Your task to perform on an android device: Go to settings Image 0: 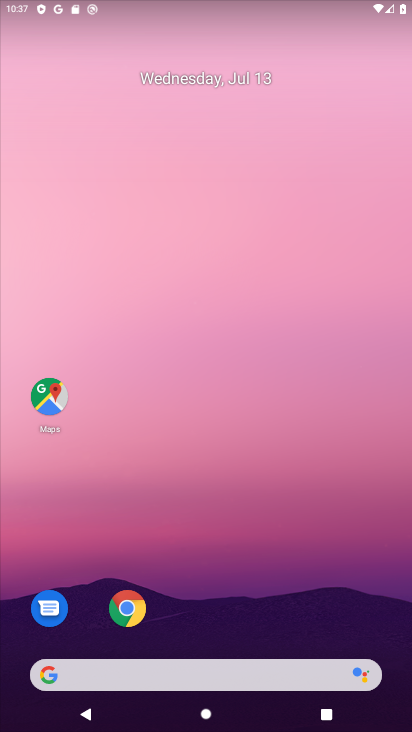
Step 0: drag from (268, 596) to (304, 158)
Your task to perform on an android device: Go to settings Image 1: 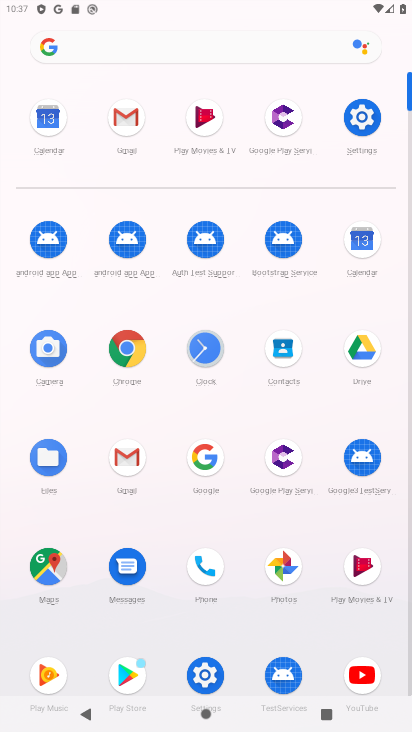
Step 1: click (368, 122)
Your task to perform on an android device: Go to settings Image 2: 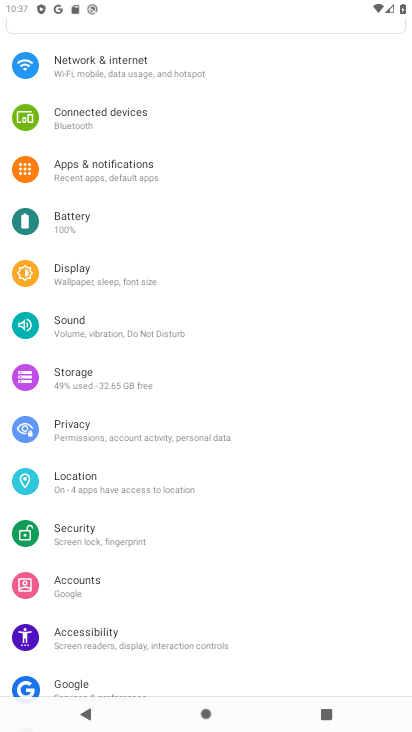
Step 2: task complete